Your task to perform on an android device: Open the phone app and click the voicemail tab. Image 0: 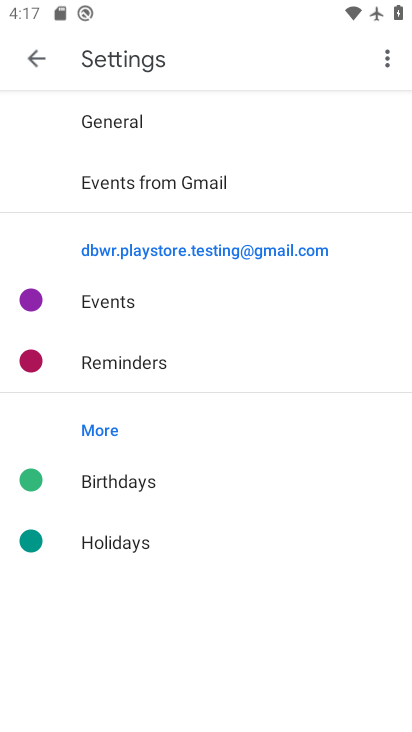
Step 0: press home button
Your task to perform on an android device: Open the phone app and click the voicemail tab. Image 1: 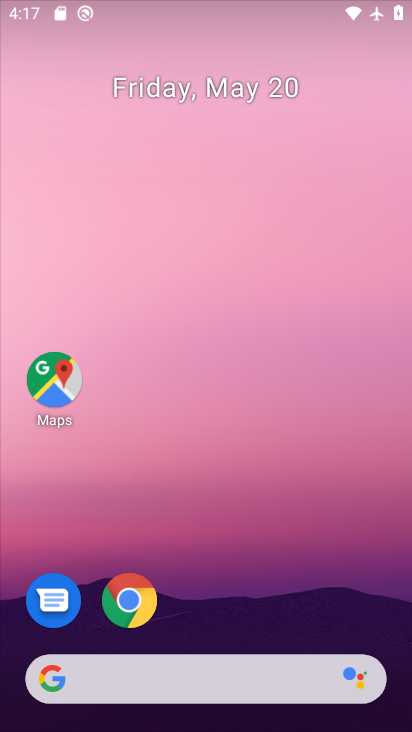
Step 1: drag from (334, 553) to (187, 41)
Your task to perform on an android device: Open the phone app and click the voicemail tab. Image 2: 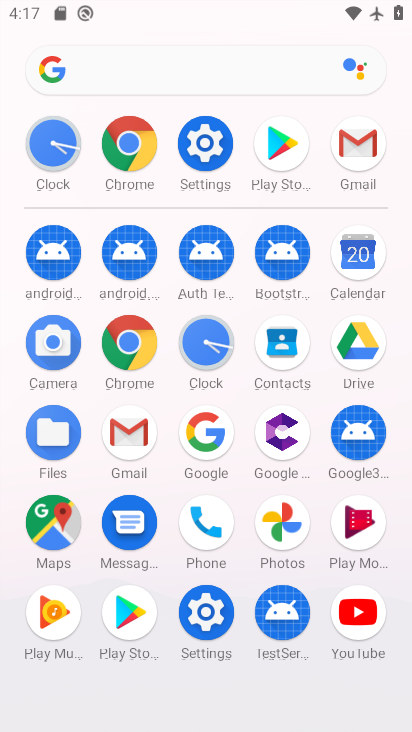
Step 2: click (188, 528)
Your task to perform on an android device: Open the phone app and click the voicemail tab. Image 3: 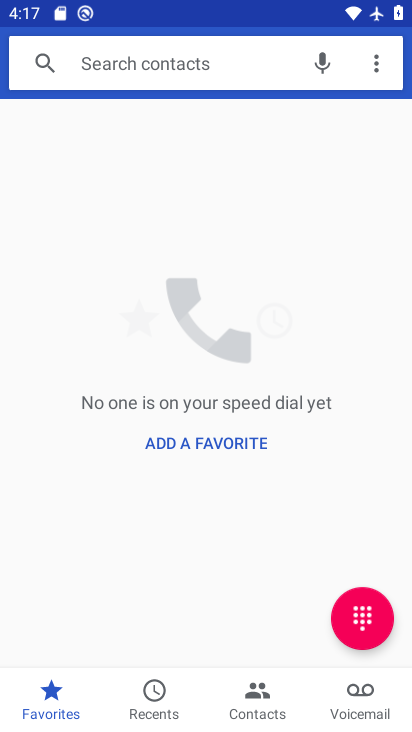
Step 3: click (361, 712)
Your task to perform on an android device: Open the phone app and click the voicemail tab. Image 4: 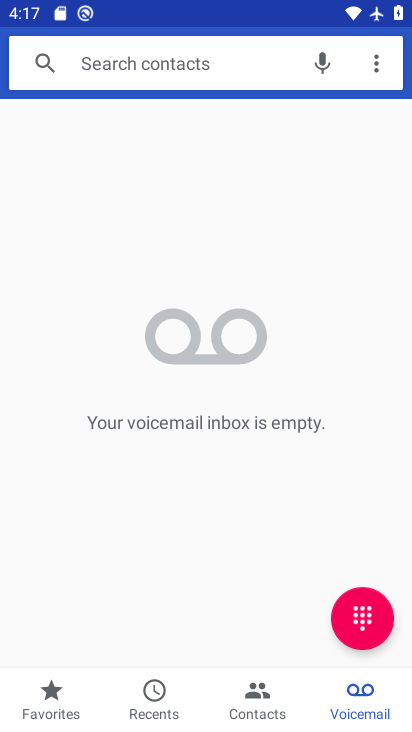
Step 4: task complete